Your task to perform on an android device: toggle pop-ups in chrome Image 0: 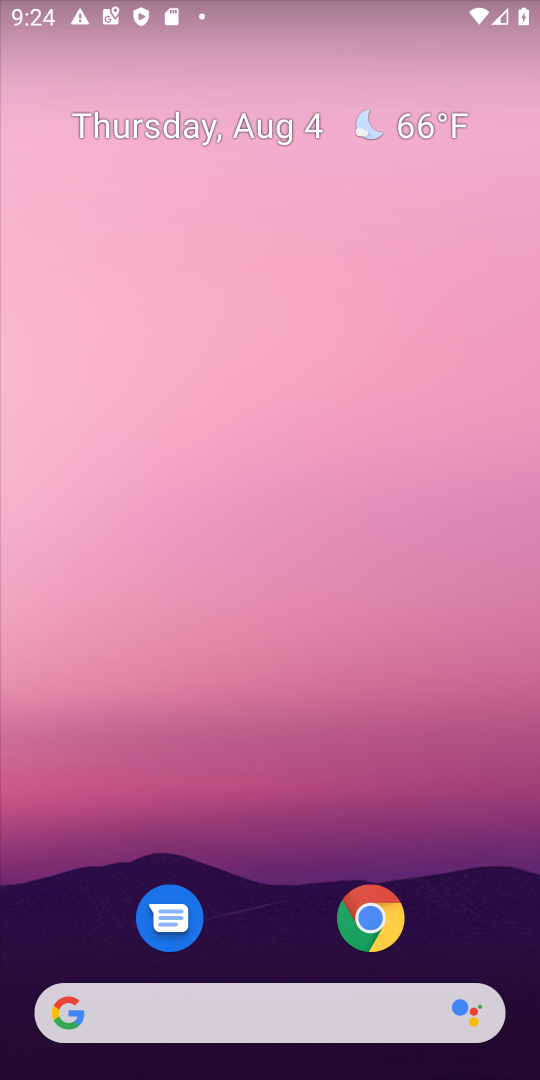
Step 0: press home button
Your task to perform on an android device: toggle pop-ups in chrome Image 1: 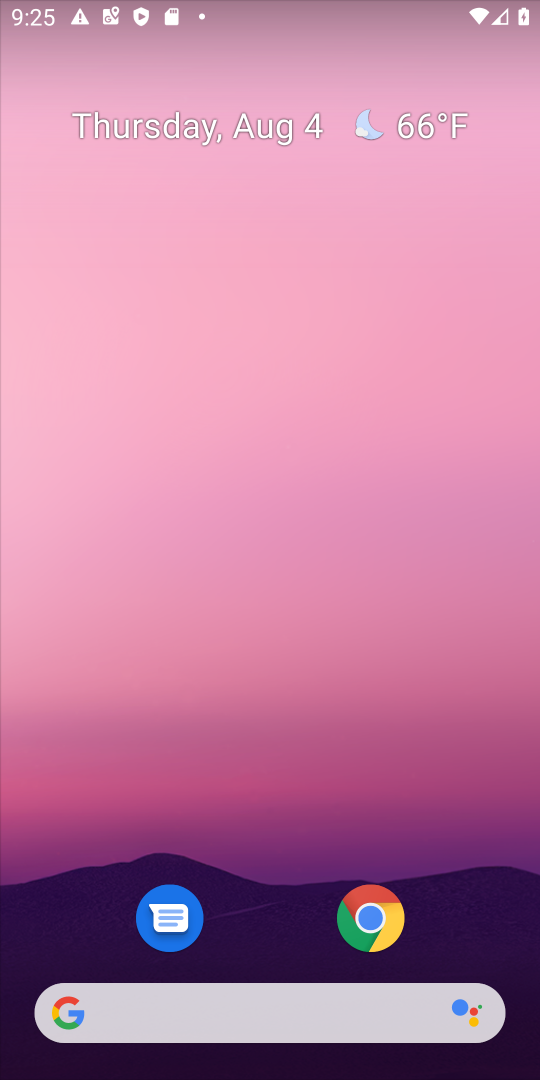
Step 1: click (357, 906)
Your task to perform on an android device: toggle pop-ups in chrome Image 2: 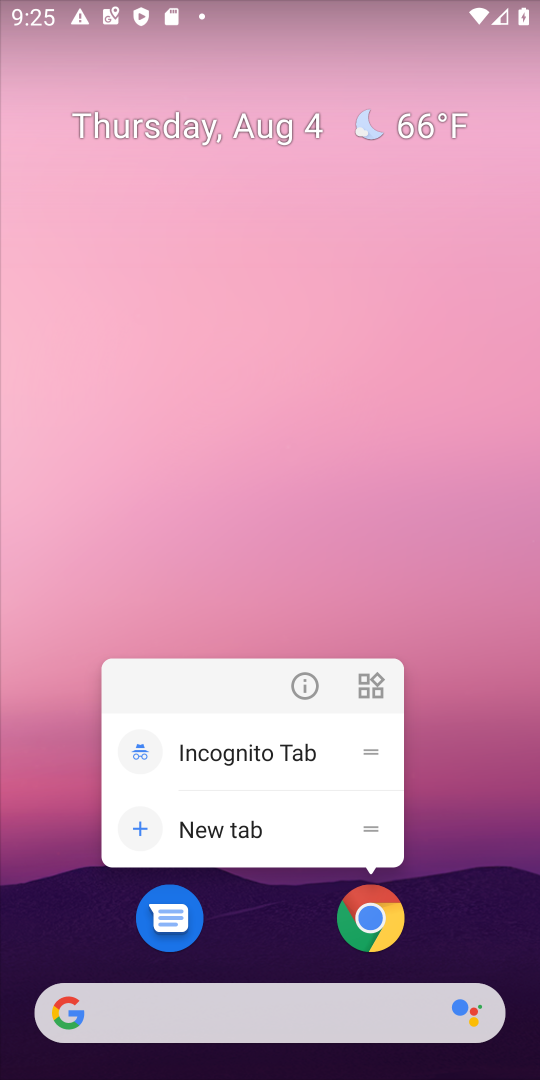
Step 2: click (437, 931)
Your task to perform on an android device: toggle pop-ups in chrome Image 3: 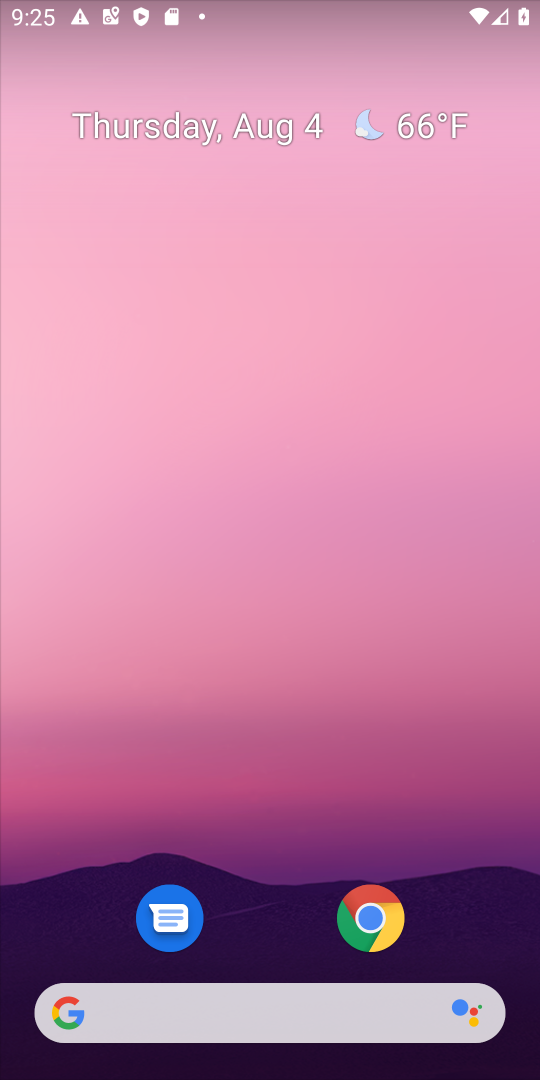
Step 3: drag from (458, 940) to (433, 47)
Your task to perform on an android device: toggle pop-ups in chrome Image 4: 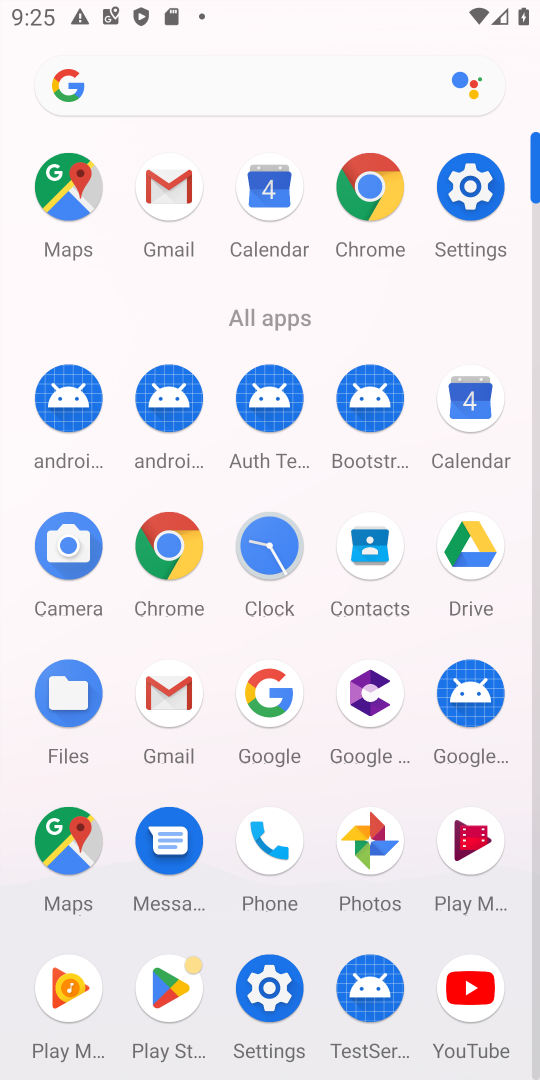
Step 4: click (369, 178)
Your task to perform on an android device: toggle pop-ups in chrome Image 5: 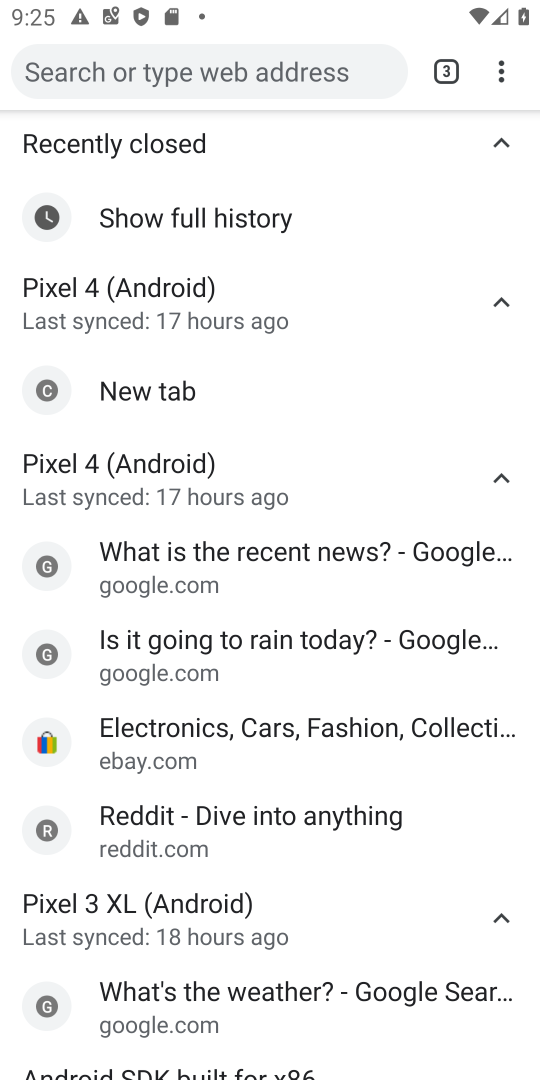
Step 5: click (501, 71)
Your task to perform on an android device: toggle pop-ups in chrome Image 6: 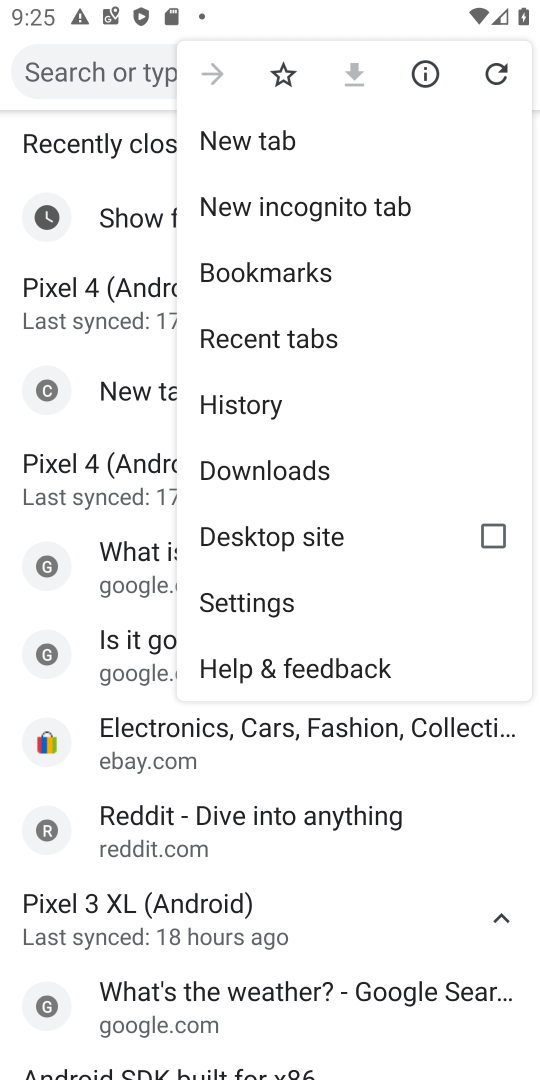
Step 6: click (310, 595)
Your task to perform on an android device: toggle pop-ups in chrome Image 7: 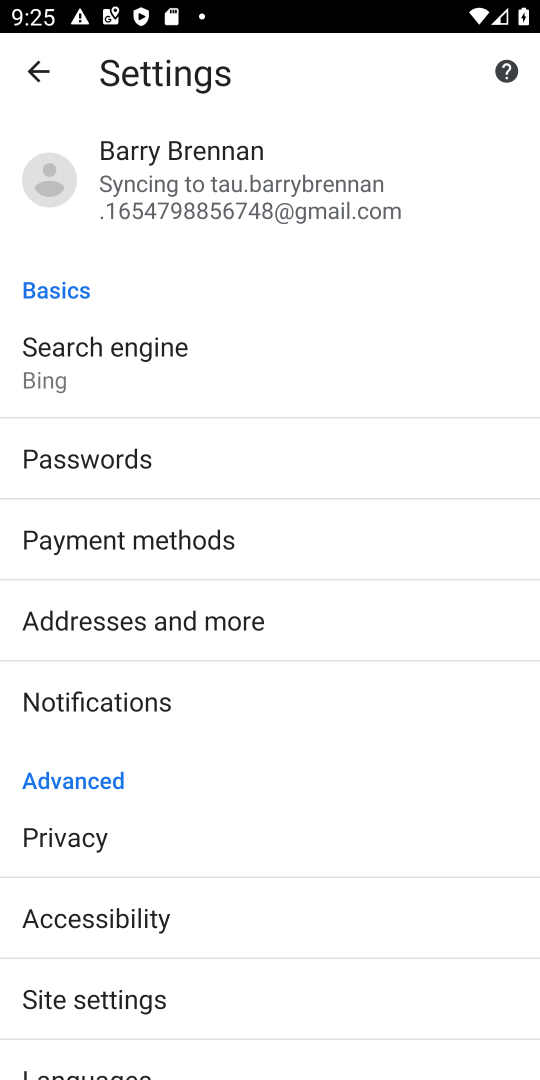
Step 7: drag from (247, 974) to (289, 126)
Your task to perform on an android device: toggle pop-ups in chrome Image 8: 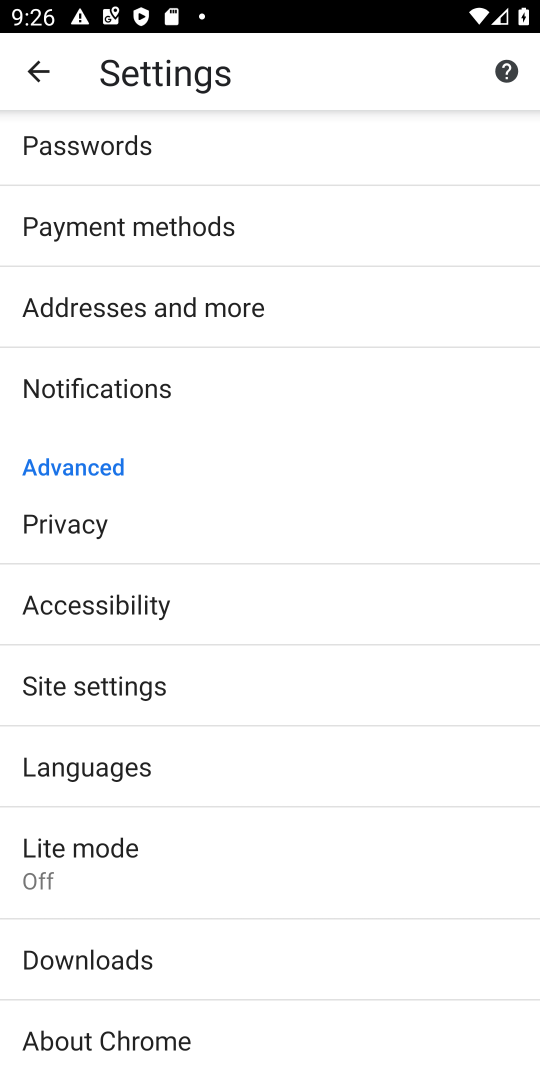
Step 8: click (185, 690)
Your task to perform on an android device: toggle pop-ups in chrome Image 9: 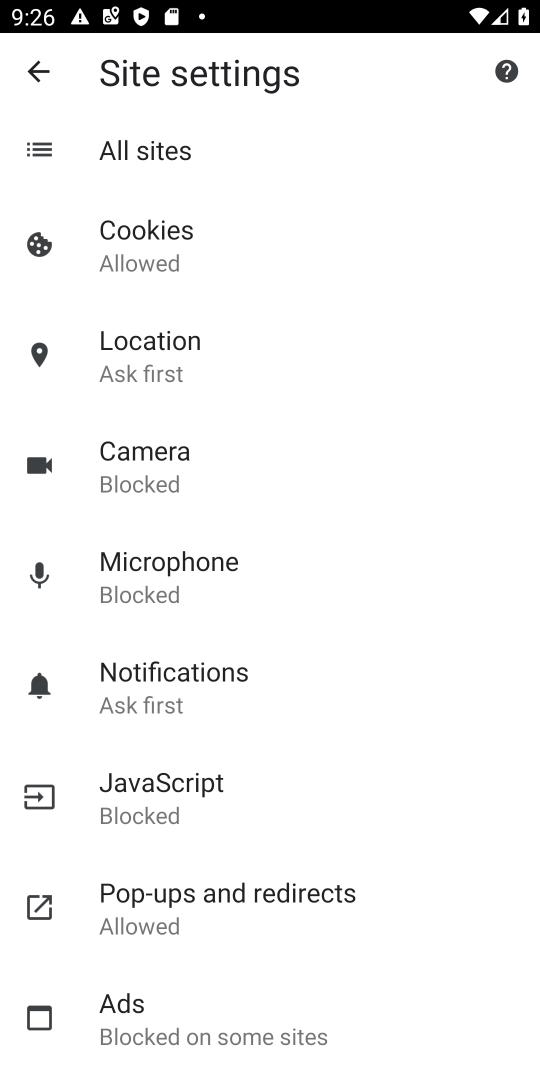
Step 9: click (213, 905)
Your task to perform on an android device: toggle pop-ups in chrome Image 10: 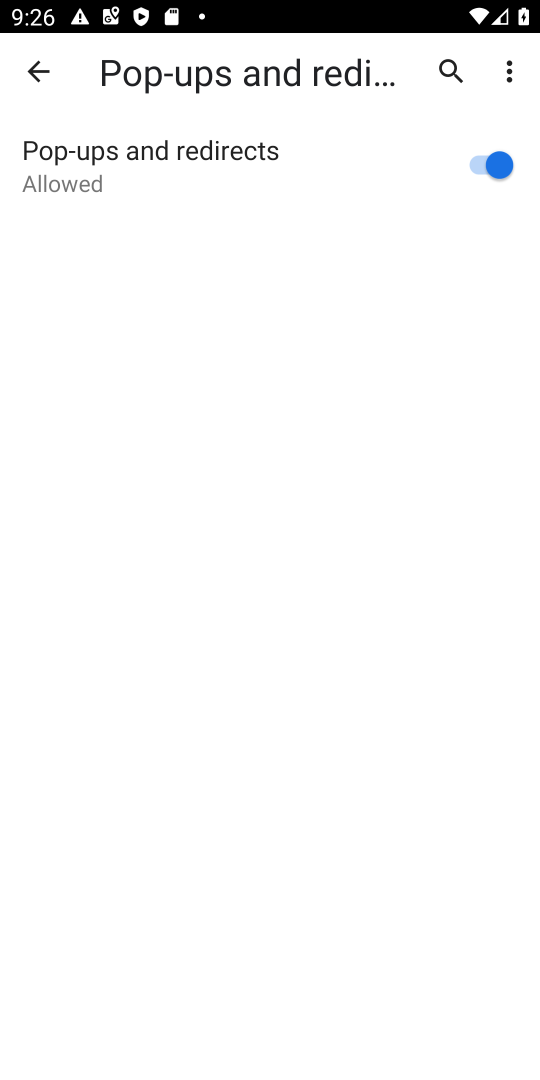
Step 10: click (484, 145)
Your task to perform on an android device: toggle pop-ups in chrome Image 11: 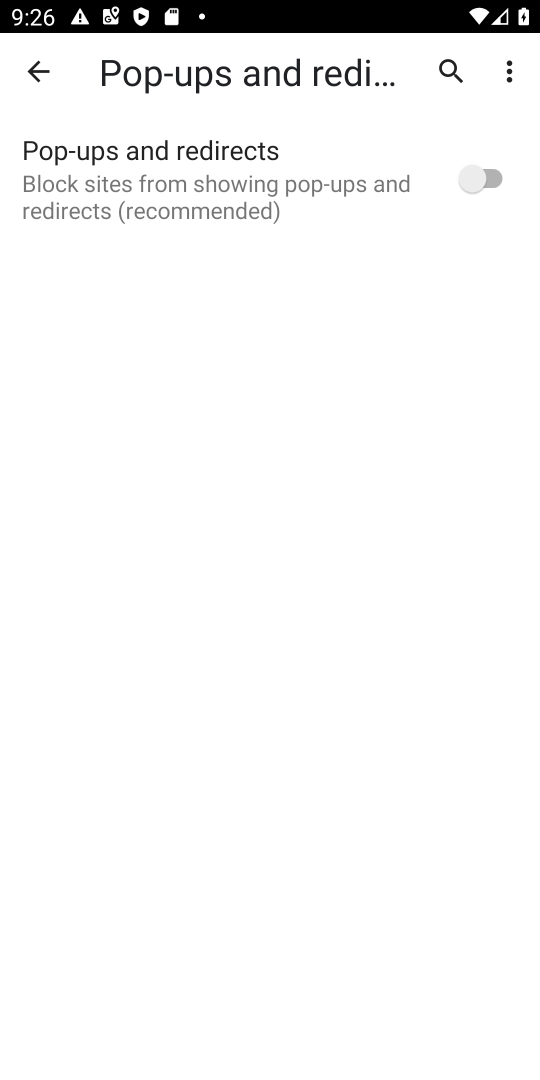
Step 11: task complete